Your task to perform on an android device: Open the Play Movies app and select the watchlist tab. Image 0: 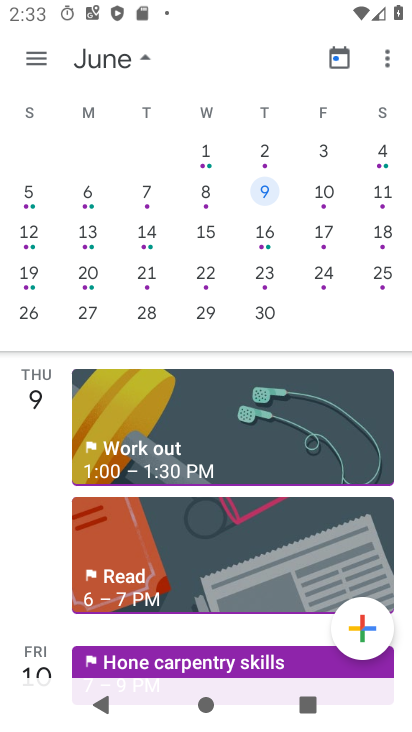
Step 0: press home button
Your task to perform on an android device: Open the Play Movies app and select the watchlist tab. Image 1: 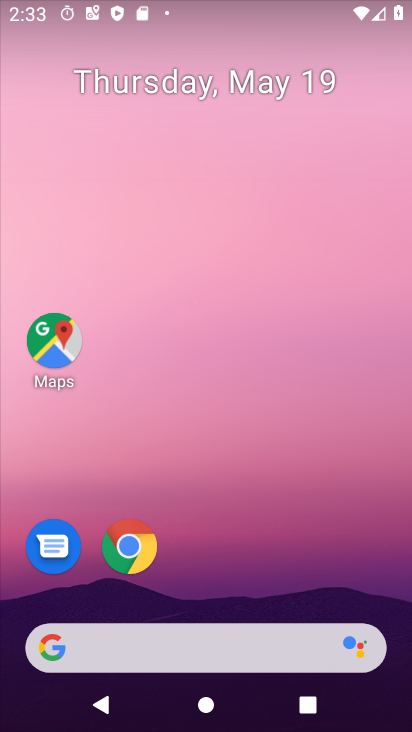
Step 1: drag from (235, 597) to (155, 95)
Your task to perform on an android device: Open the Play Movies app and select the watchlist tab. Image 2: 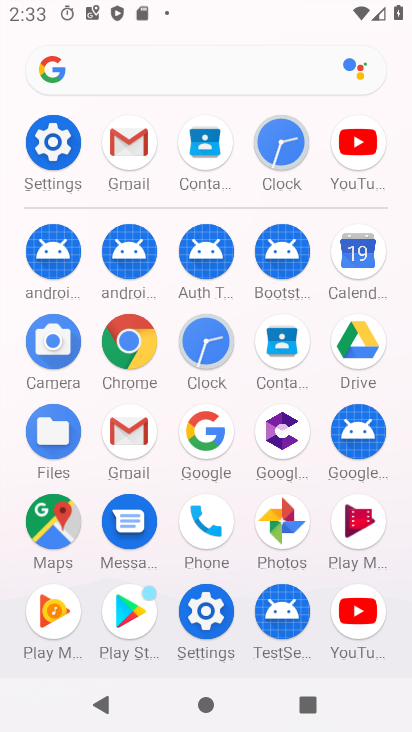
Step 2: click (379, 527)
Your task to perform on an android device: Open the Play Movies app and select the watchlist tab. Image 3: 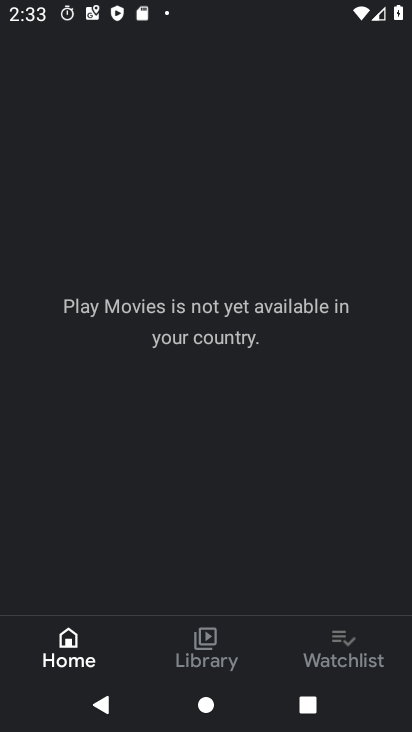
Step 3: click (359, 634)
Your task to perform on an android device: Open the Play Movies app and select the watchlist tab. Image 4: 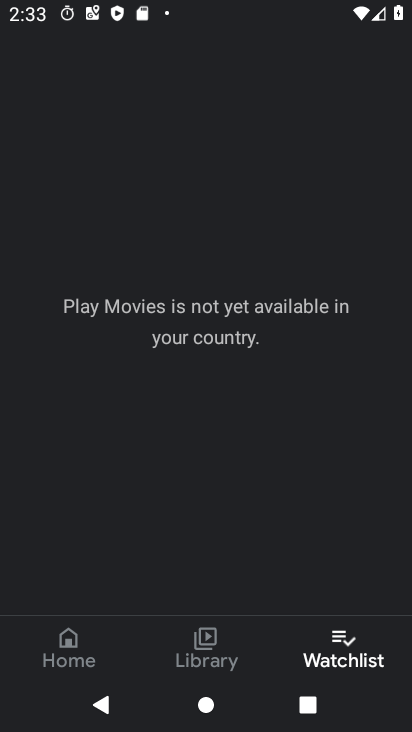
Step 4: task complete